Your task to perform on an android device: Check the settings for the Google Play Movies app Image 0: 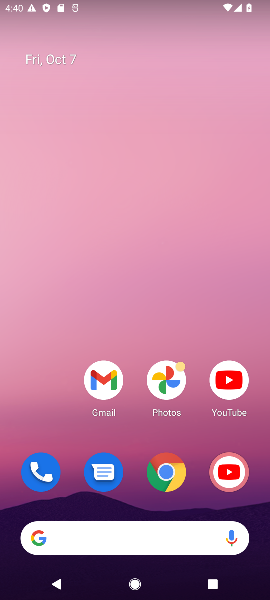
Step 0: drag from (205, 446) to (175, 235)
Your task to perform on an android device: Check the settings for the Google Play Movies app Image 1: 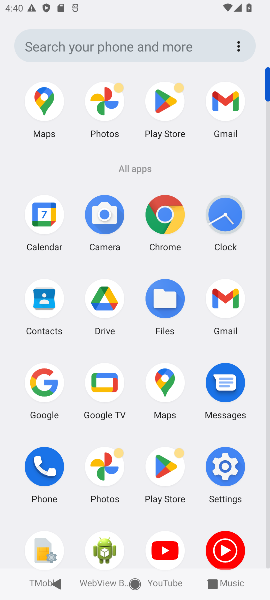
Step 1: click (167, 469)
Your task to perform on an android device: Check the settings for the Google Play Movies app Image 2: 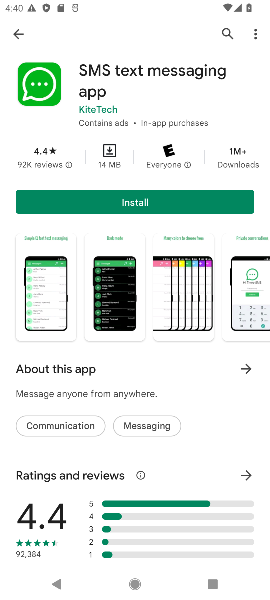
Step 2: click (12, 35)
Your task to perform on an android device: Check the settings for the Google Play Movies app Image 3: 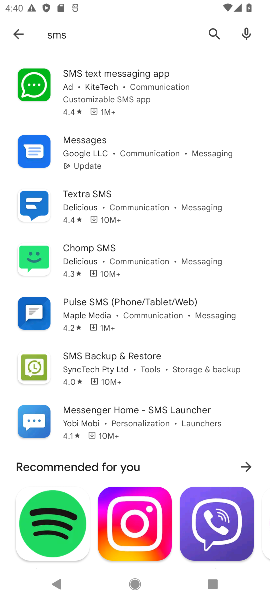
Step 3: click (218, 33)
Your task to perform on an android device: Check the settings for the Google Play Movies app Image 4: 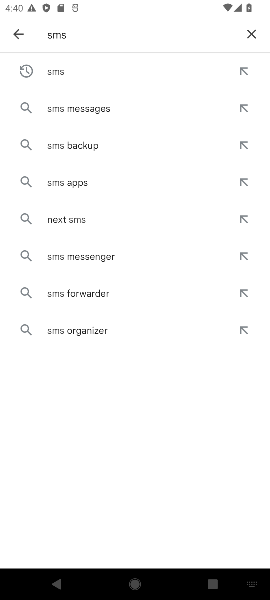
Step 4: click (253, 31)
Your task to perform on an android device: Check the settings for the Google Play Movies app Image 5: 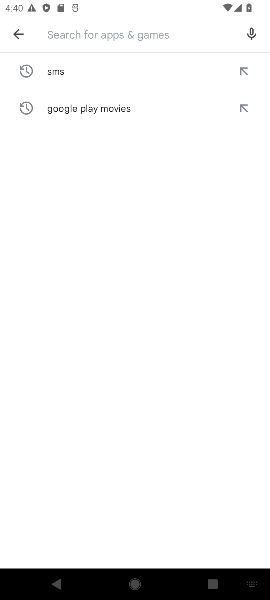
Step 5: click (119, 104)
Your task to perform on an android device: Check the settings for the Google Play Movies app Image 6: 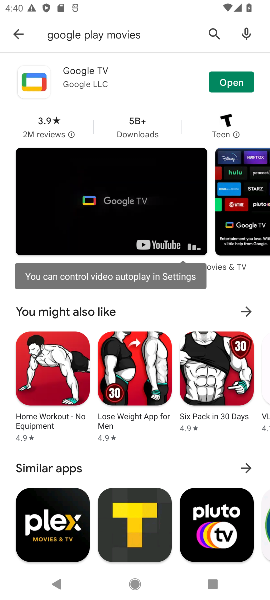
Step 6: click (217, 83)
Your task to perform on an android device: Check the settings for the Google Play Movies app Image 7: 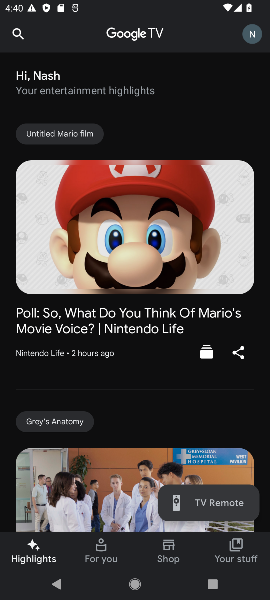
Step 7: click (252, 37)
Your task to perform on an android device: Check the settings for the Google Play Movies app Image 8: 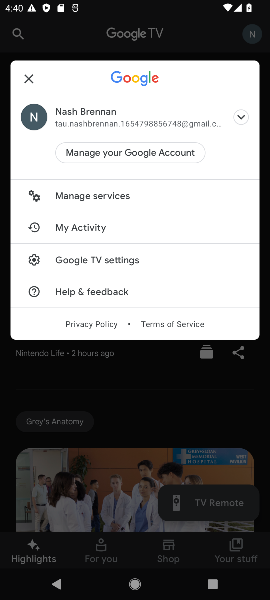
Step 8: click (102, 260)
Your task to perform on an android device: Check the settings for the Google Play Movies app Image 9: 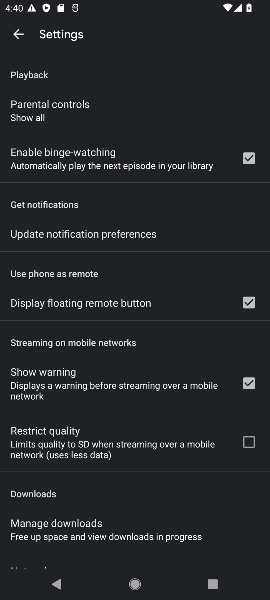
Step 9: task complete